Your task to perform on an android device: Open notification settings Image 0: 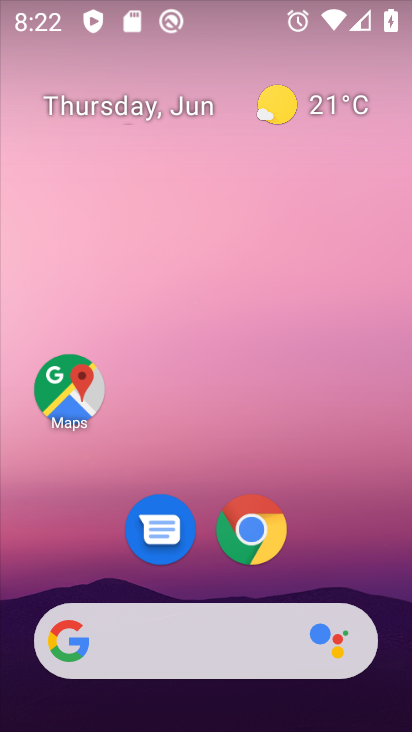
Step 0: drag from (387, 644) to (331, 182)
Your task to perform on an android device: Open notification settings Image 1: 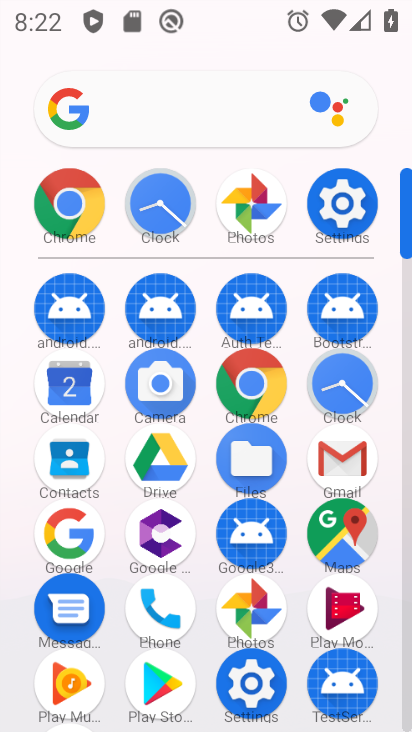
Step 1: click (345, 212)
Your task to perform on an android device: Open notification settings Image 2: 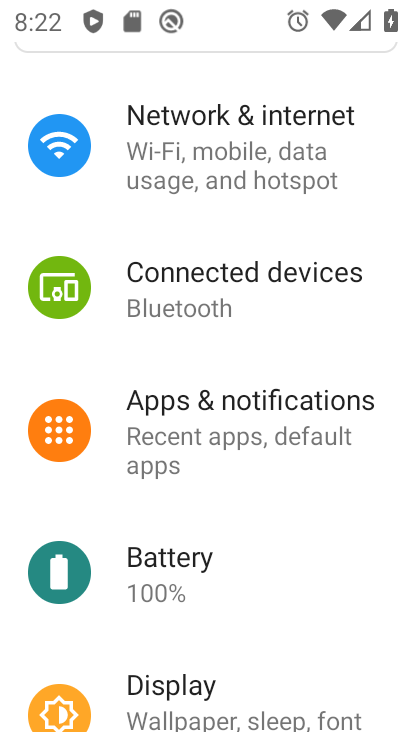
Step 2: click (267, 402)
Your task to perform on an android device: Open notification settings Image 3: 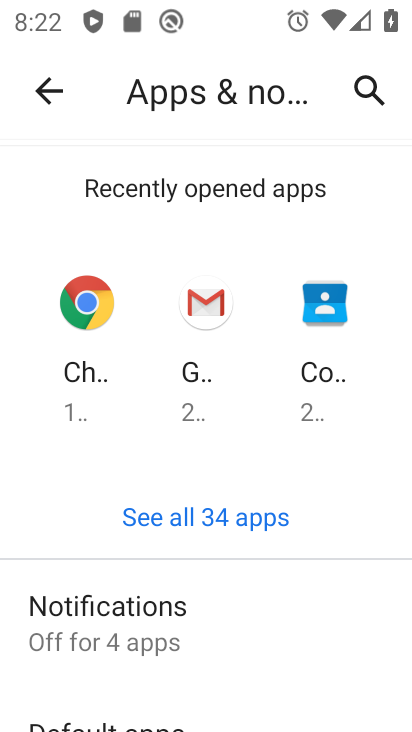
Step 3: click (111, 613)
Your task to perform on an android device: Open notification settings Image 4: 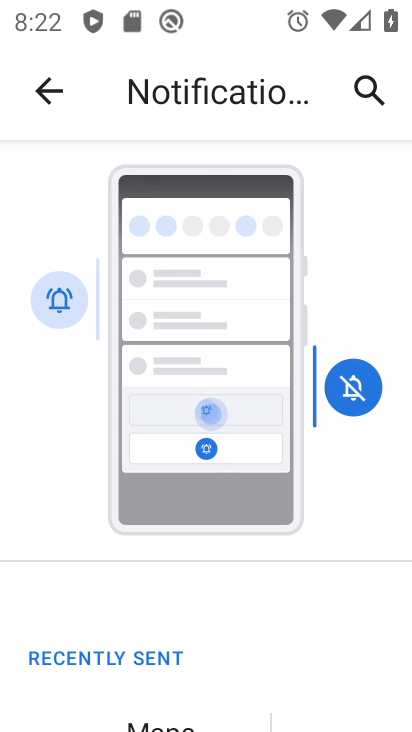
Step 4: drag from (318, 684) to (296, 222)
Your task to perform on an android device: Open notification settings Image 5: 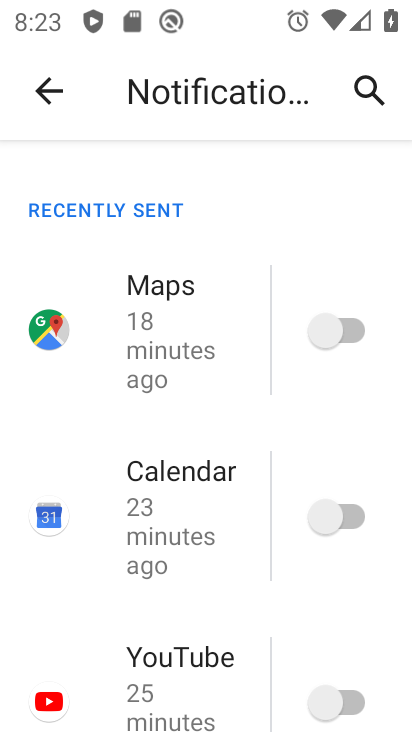
Step 5: drag from (272, 672) to (266, 257)
Your task to perform on an android device: Open notification settings Image 6: 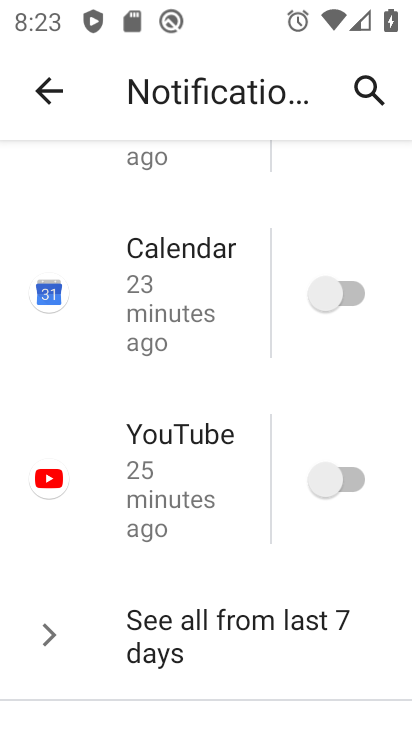
Step 6: drag from (255, 686) to (263, 385)
Your task to perform on an android device: Open notification settings Image 7: 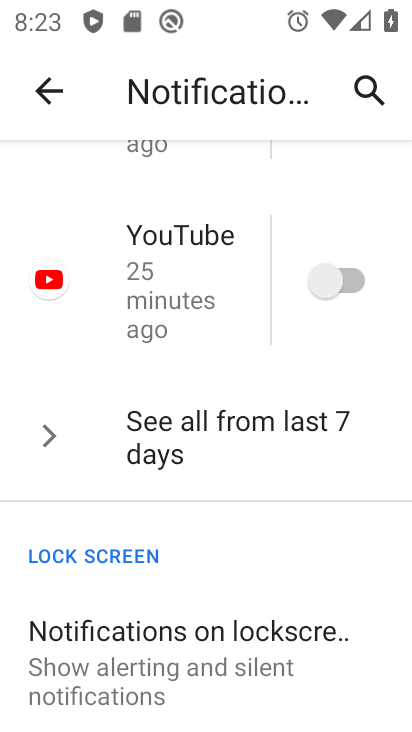
Step 7: drag from (225, 570) to (246, 319)
Your task to perform on an android device: Open notification settings Image 8: 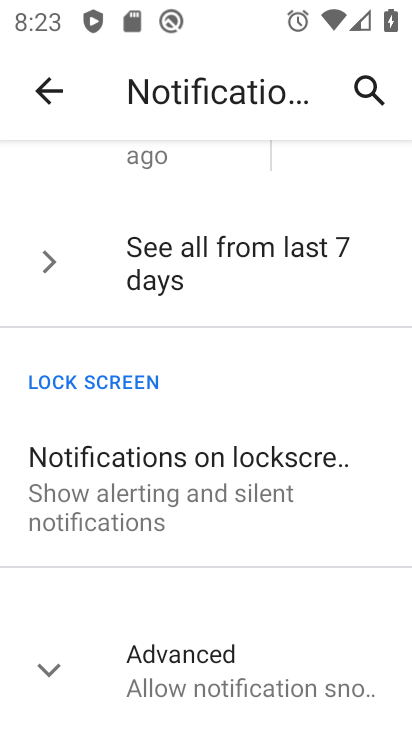
Step 8: click (111, 464)
Your task to perform on an android device: Open notification settings Image 9: 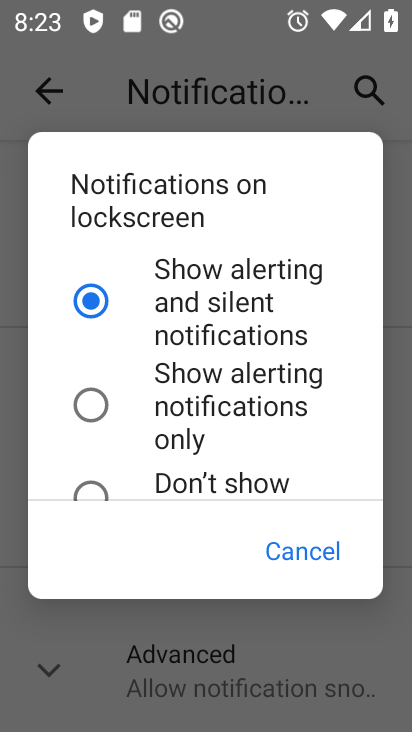
Step 9: click (309, 555)
Your task to perform on an android device: Open notification settings Image 10: 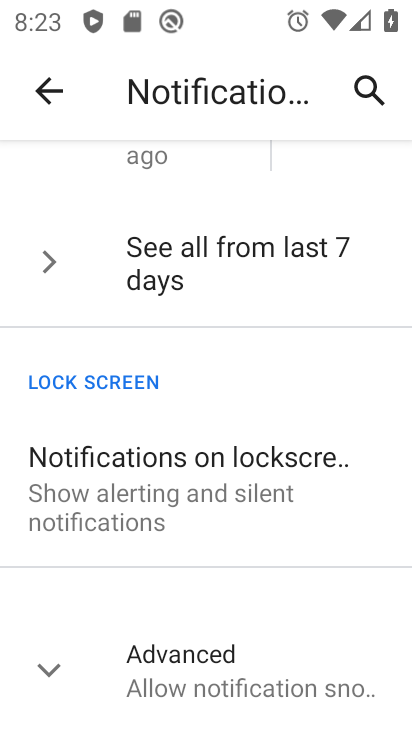
Step 10: click (62, 673)
Your task to perform on an android device: Open notification settings Image 11: 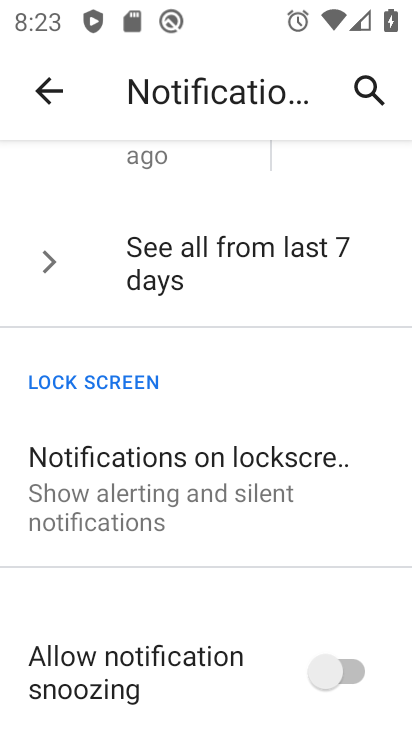
Step 11: task complete